Your task to perform on an android device: see sites visited before in the chrome app Image 0: 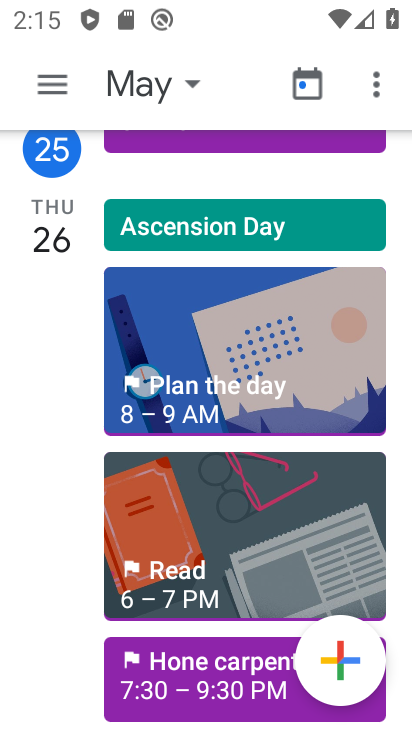
Step 0: press home button
Your task to perform on an android device: see sites visited before in the chrome app Image 1: 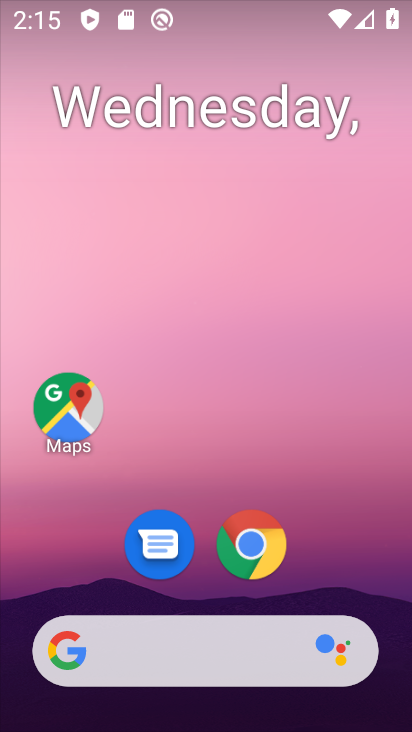
Step 1: drag from (382, 575) to (340, 85)
Your task to perform on an android device: see sites visited before in the chrome app Image 2: 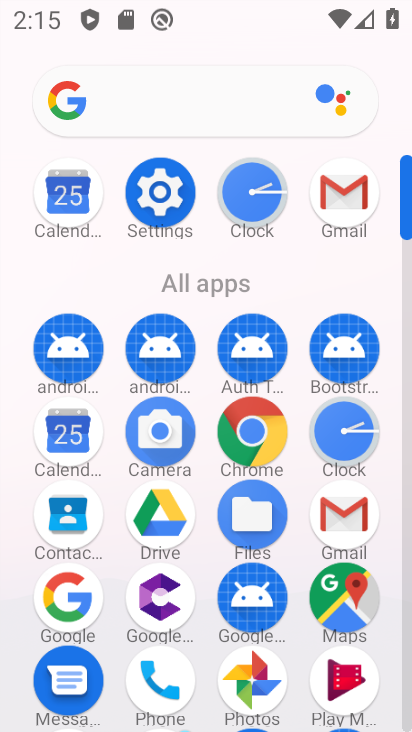
Step 2: click (252, 414)
Your task to perform on an android device: see sites visited before in the chrome app Image 3: 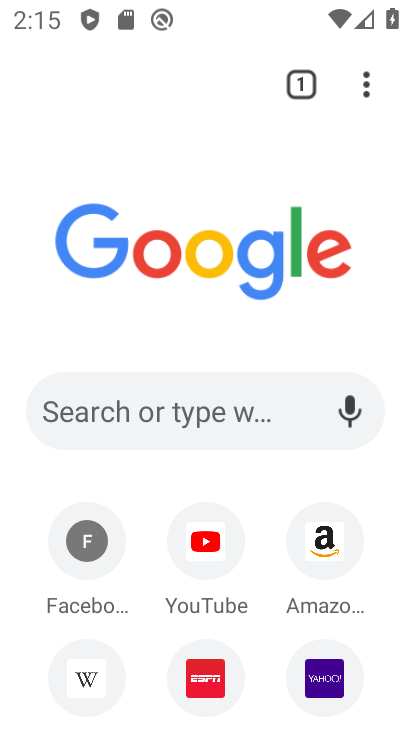
Step 3: task complete